Your task to perform on an android device: stop showing notifications on the lock screen Image 0: 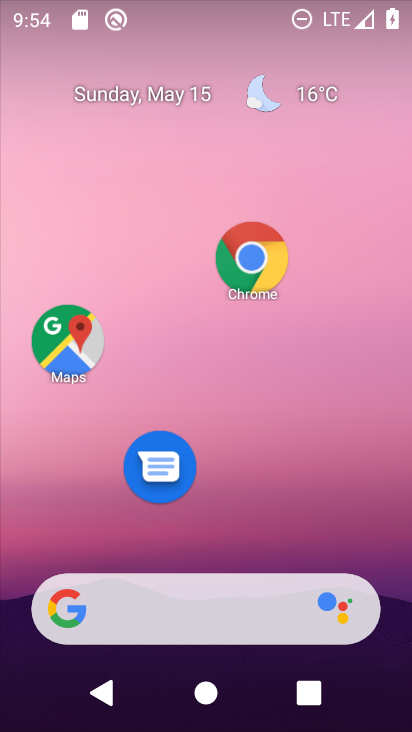
Step 0: drag from (305, 514) to (294, 27)
Your task to perform on an android device: stop showing notifications on the lock screen Image 1: 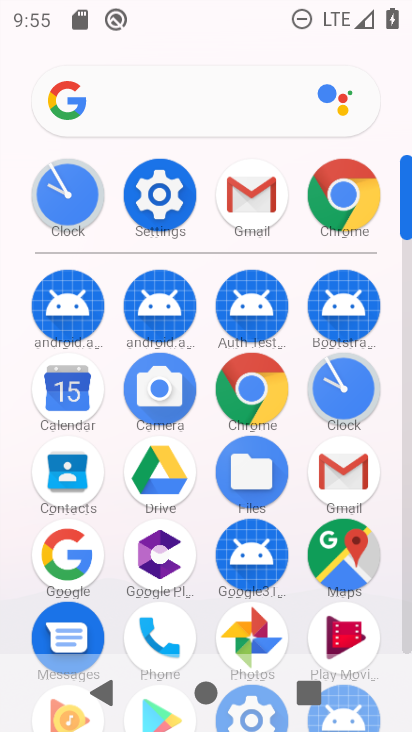
Step 1: click (168, 200)
Your task to perform on an android device: stop showing notifications on the lock screen Image 2: 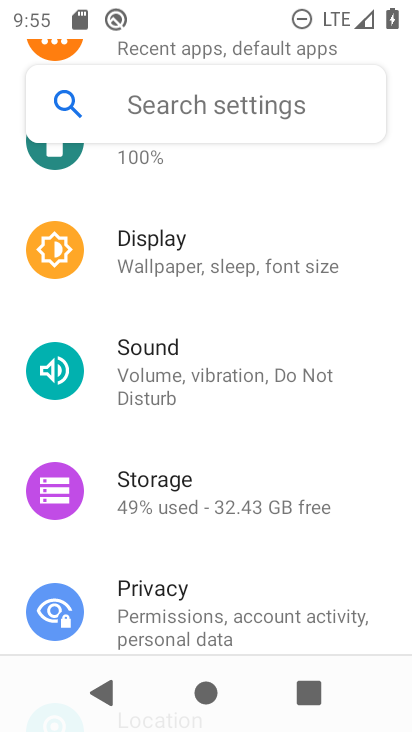
Step 2: drag from (209, 258) to (235, 639)
Your task to perform on an android device: stop showing notifications on the lock screen Image 3: 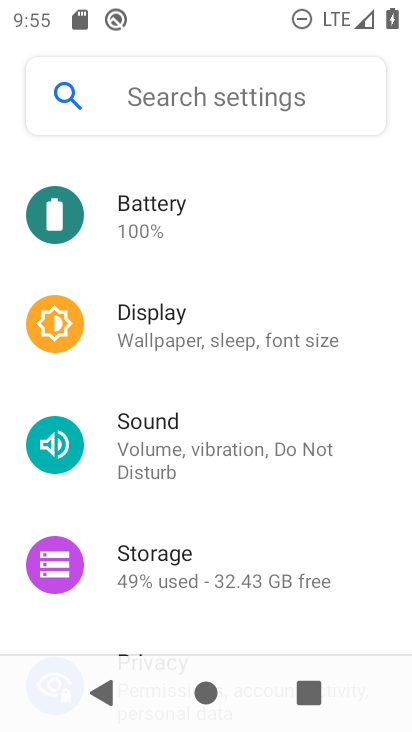
Step 3: drag from (188, 272) to (216, 619)
Your task to perform on an android device: stop showing notifications on the lock screen Image 4: 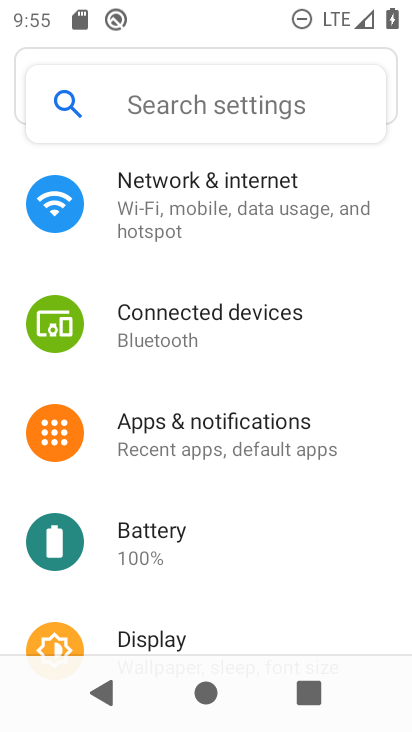
Step 4: click (208, 421)
Your task to perform on an android device: stop showing notifications on the lock screen Image 5: 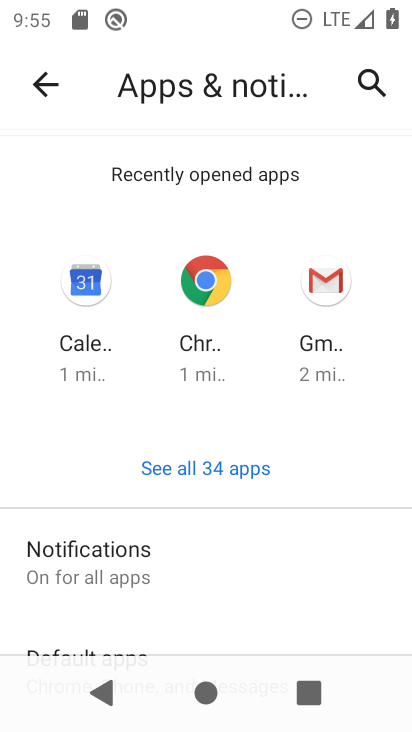
Step 5: drag from (208, 601) to (272, 103)
Your task to perform on an android device: stop showing notifications on the lock screen Image 6: 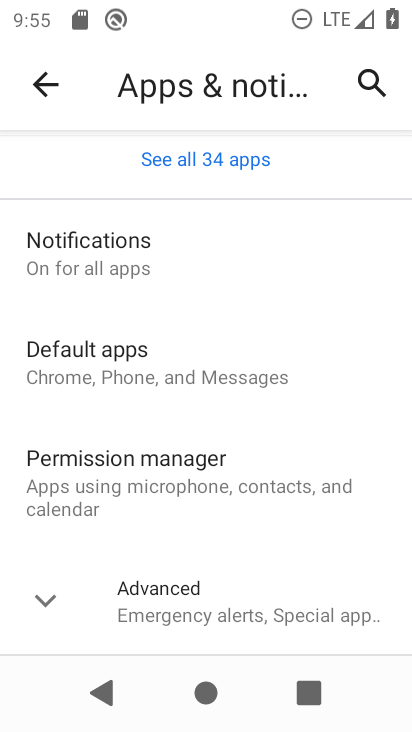
Step 6: click (149, 259)
Your task to perform on an android device: stop showing notifications on the lock screen Image 7: 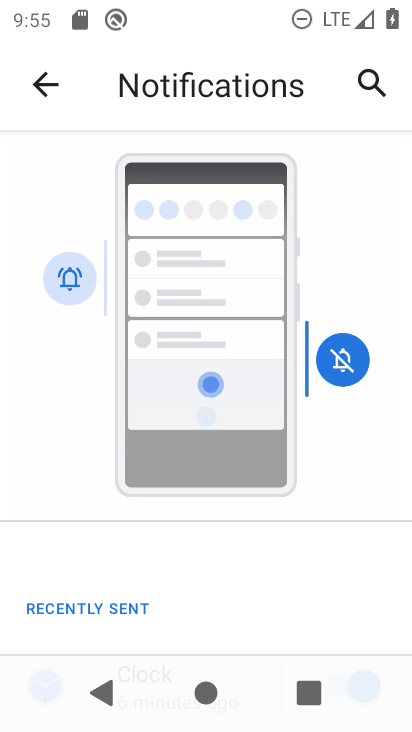
Step 7: drag from (186, 606) to (318, 20)
Your task to perform on an android device: stop showing notifications on the lock screen Image 8: 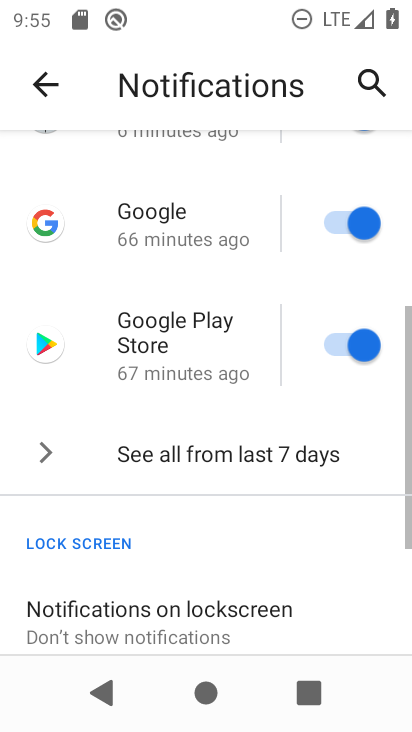
Step 8: drag from (195, 614) to (190, 235)
Your task to perform on an android device: stop showing notifications on the lock screen Image 9: 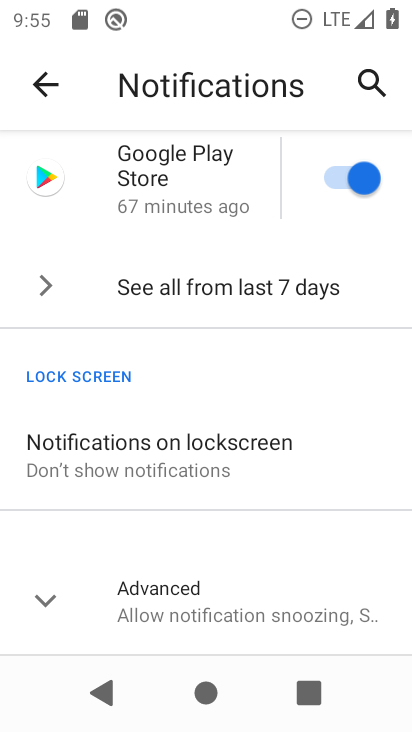
Step 9: click (194, 463)
Your task to perform on an android device: stop showing notifications on the lock screen Image 10: 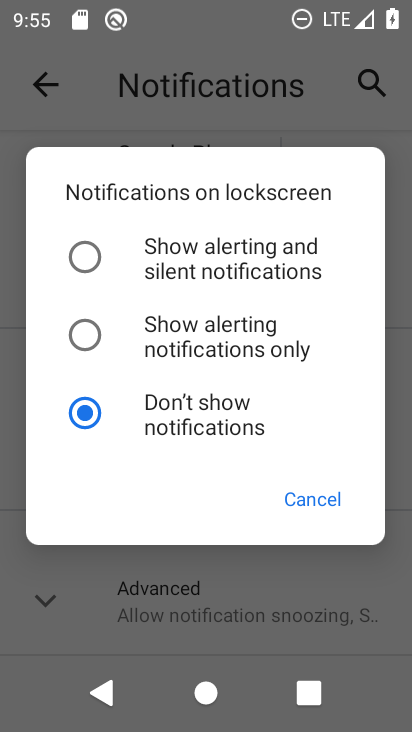
Step 10: task complete